Your task to perform on an android device: Do I have any events today? Image 0: 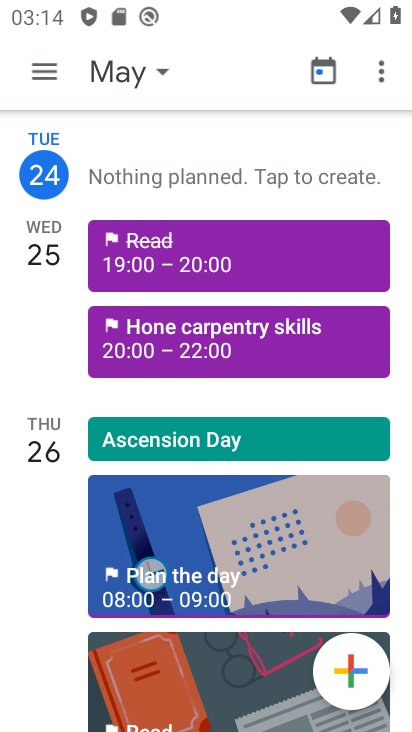
Step 0: drag from (212, 193) to (199, 670)
Your task to perform on an android device: Do I have any events today? Image 1: 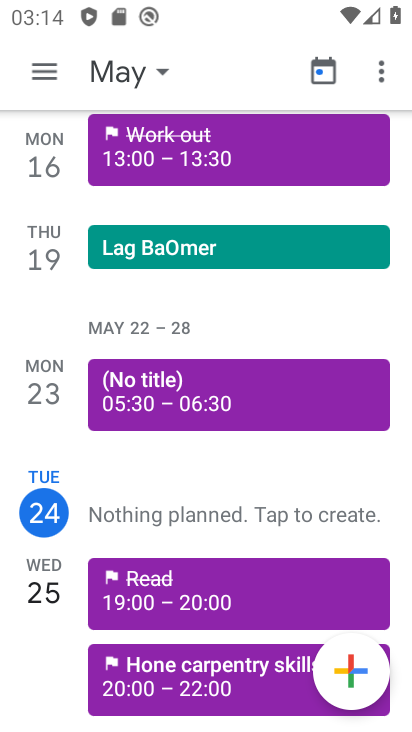
Step 1: task complete